Your task to perform on an android device: Go to network settings Image 0: 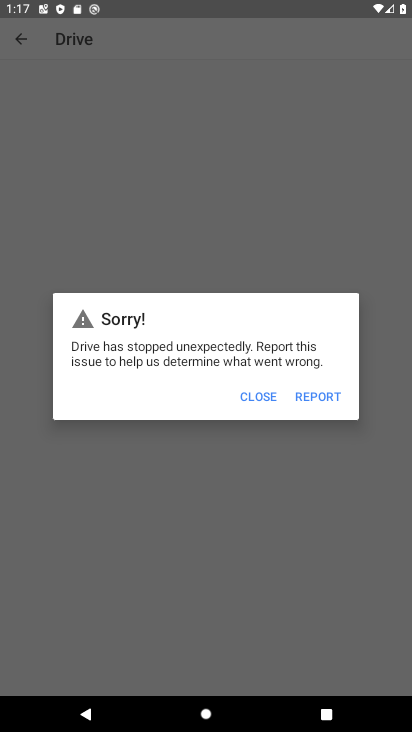
Step 0: press home button
Your task to perform on an android device: Go to network settings Image 1: 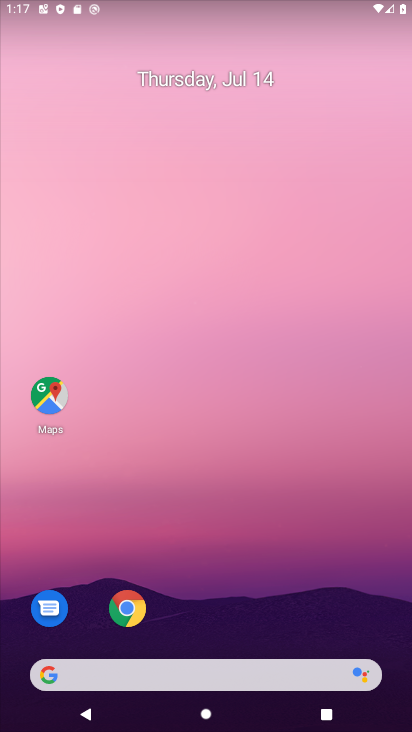
Step 1: drag from (391, 650) to (370, 212)
Your task to perform on an android device: Go to network settings Image 2: 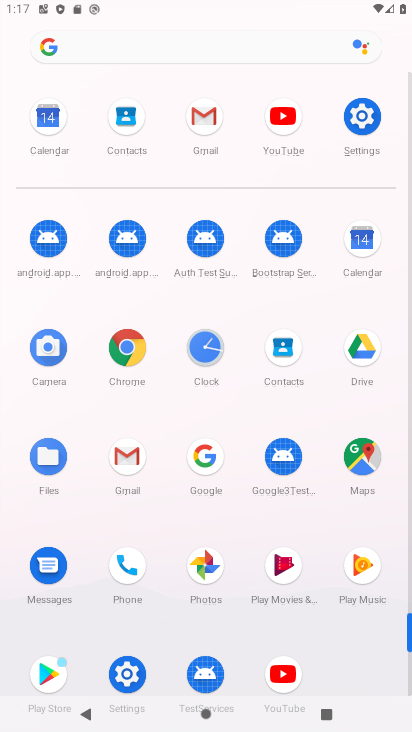
Step 2: click (125, 676)
Your task to perform on an android device: Go to network settings Image 3: 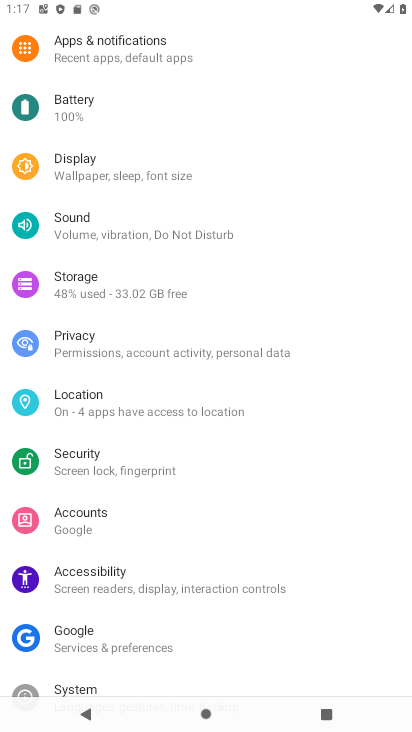
Step 3: drag from (266, 129) to (265, 394)
Your task to perform on an android device: Go to network settings Image 4: 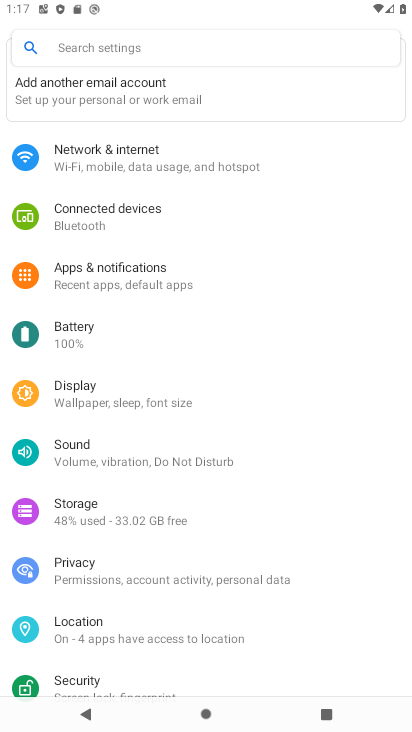
Step 4: click (92, 146)
Your task to perform on an android device: Go to network settings Image 5: 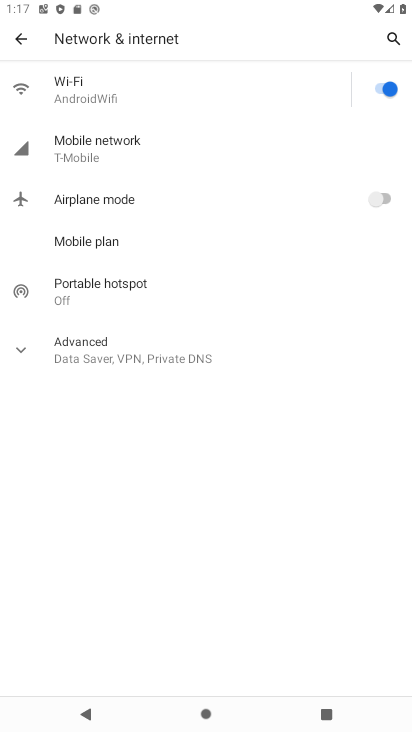
Step 5: click (71, 152)
Your task to perform on an android device: Go to network settings Image 6: 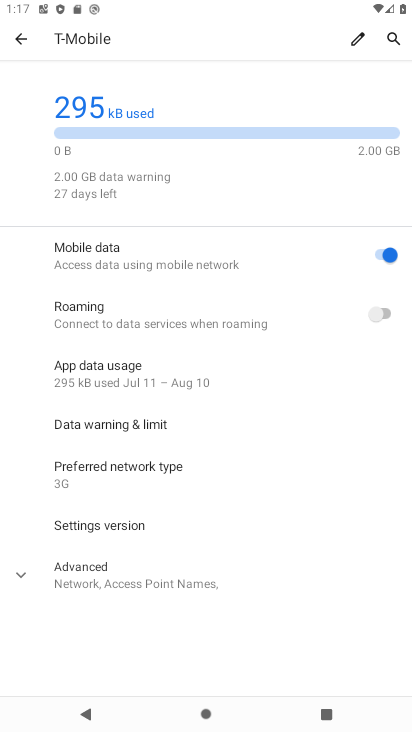
Step 6: click (22, 574)
Your task to perform on an android device: Go to network settings Image 7: 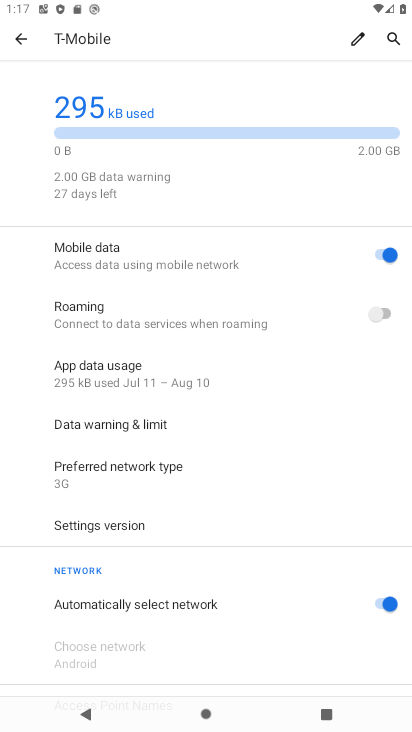
Step 7: task complete